Your task to perform on an android device: Search for seafood restaurants on Google Maps Image 0: 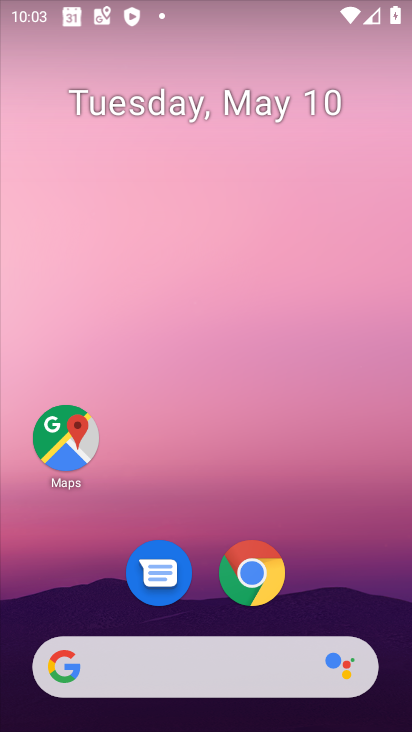
Step 0: click (58, 436)
Your task to perform on an android device: Search for seafood restaurants on Google Maps Image 1: 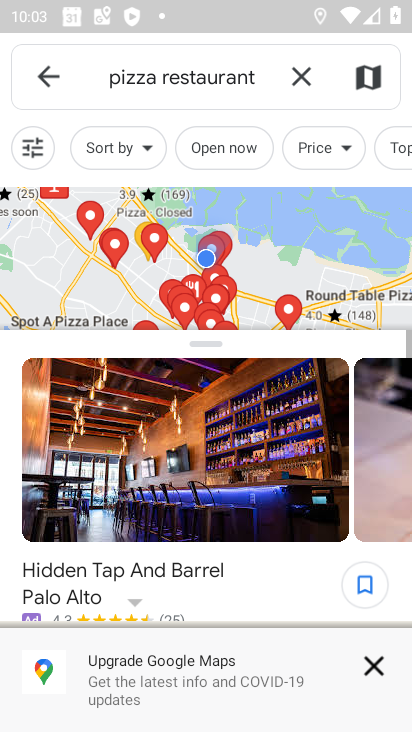
Step 1: click (301, 73)
Your task to perform on an android device: Search for seafood restaurants on Google Maps Image 2: 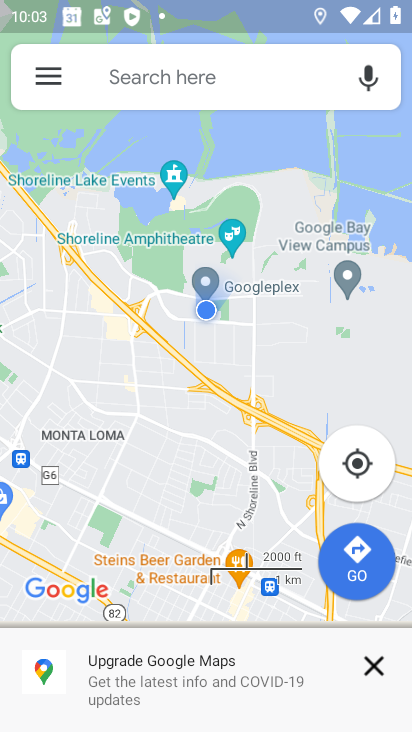
Step 2: click (196, 67)
Your task to perform on an android device: Search for seafood restaurants on Google Maps Image 3: 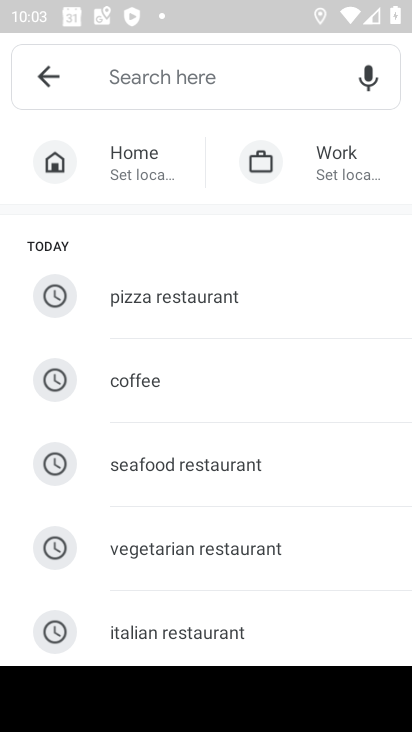
Step 3: click (210, 462)
Your task to perform on an android device: Search for seafood restaurants on Google Maps Image 4: 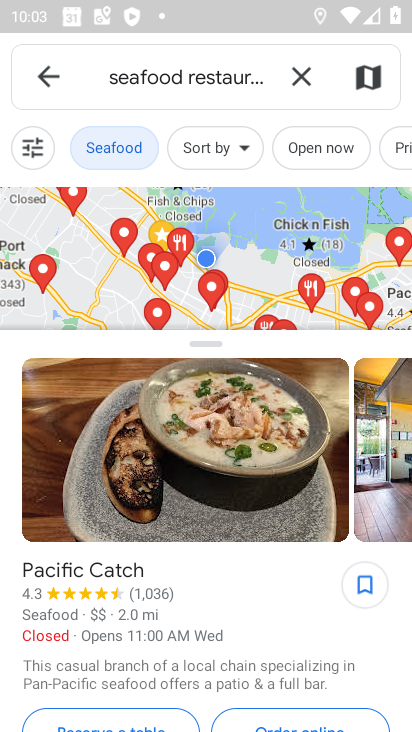
Step 4: task complete